Your task to perform on an android device: open a new tab in the chrome app Image 0: 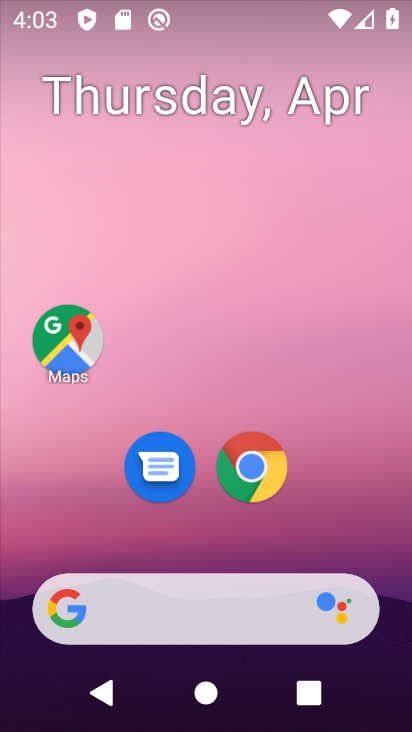
Step 0: click (335, 269)
Your task to perform on an android device: open a new tab in the chrome app Image 1: 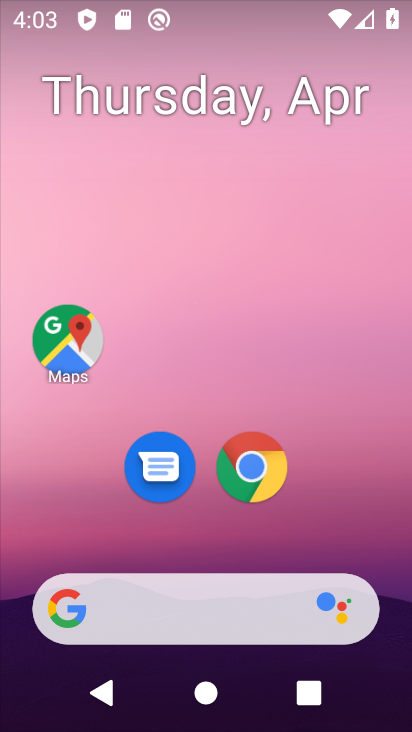
Step 1: click (266, 465)
Your task to perform on an android device: open a new tab in the chrome app Image 2: 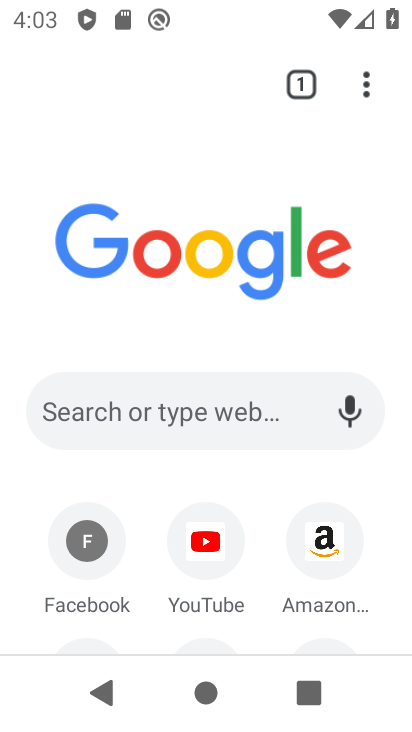
Step 2: click (373, 93)
Your task to perform on an android device: open a new tab in the chrome app Image 3: 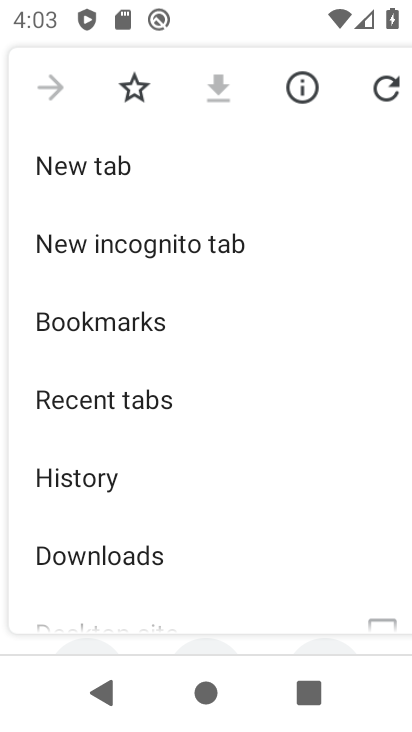
Step 3: click (107, 167)
Your task to perform on an android device: open a new tab in the chrome app Image 4: 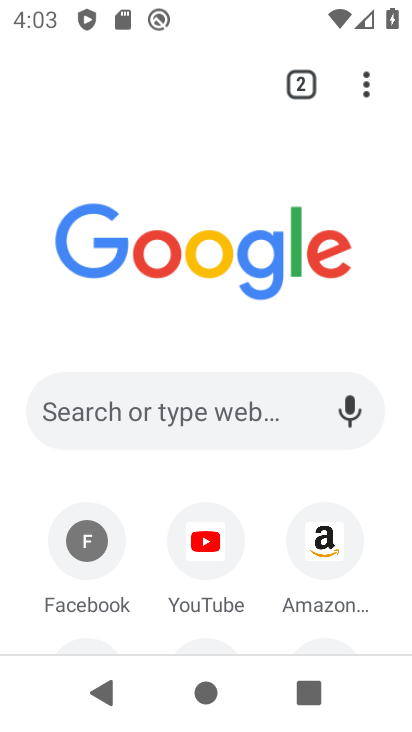
Step 4: task complete